Your task to perform on an android device: Go to wifi settings Image 0: 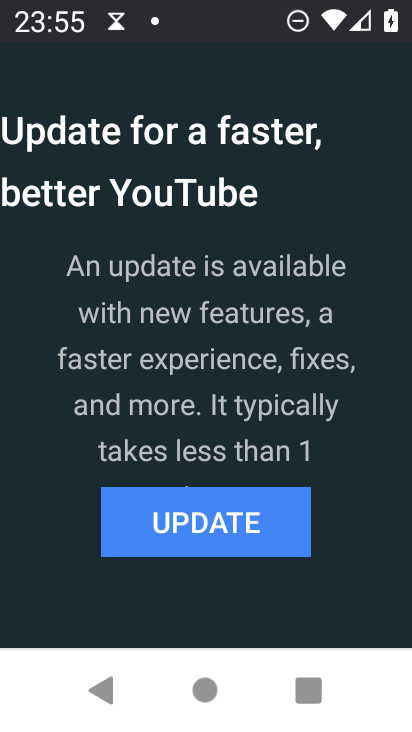
Step 0: press home button
Your task to perform on an android device: Go to wifi settings Image 1: 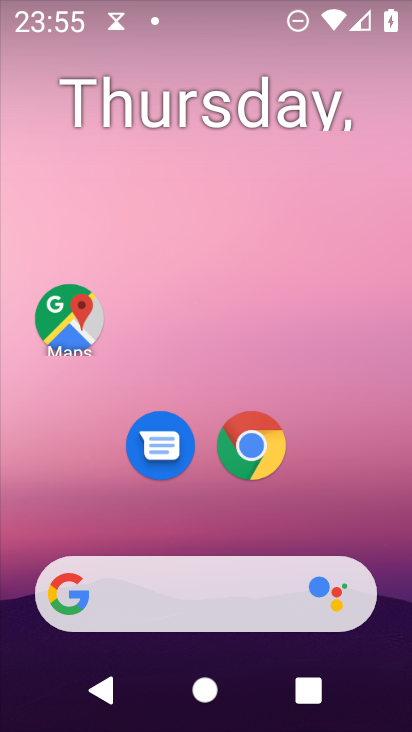
Step 1: drag from (240, 725) to (263, 3)
Your task to perform on an android device: Go to wifi settings Image 2: 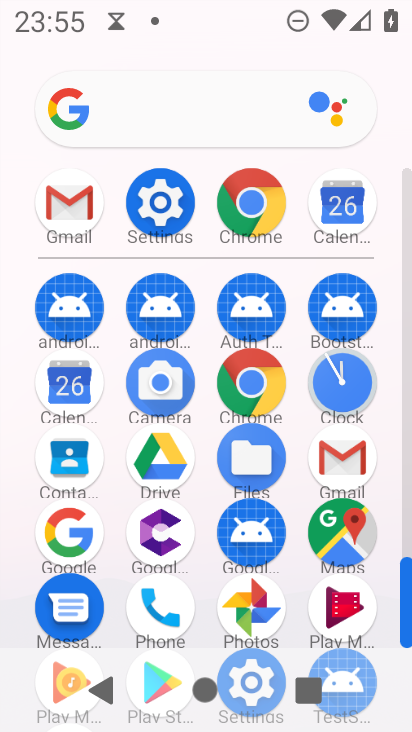
Step 2: click (163, 205)
Your task to perform on an android device: Go to wifi settings Image 3: 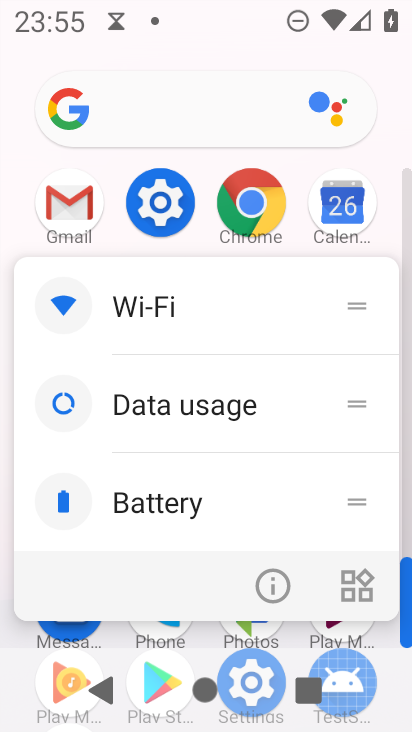
Step 3: click (155, 204)
Your task to perform on an android device: Go to wifi settings Image 4: 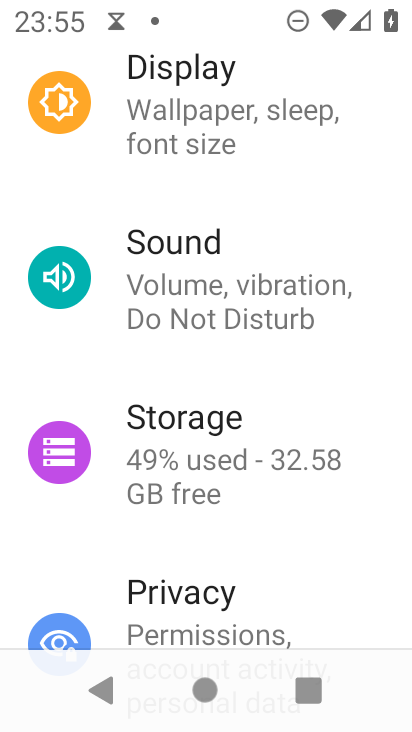
Step 4: drag from (340, 93) to (332, 559)
Your task to perform on an android device: Go to wifi settings Image 5: 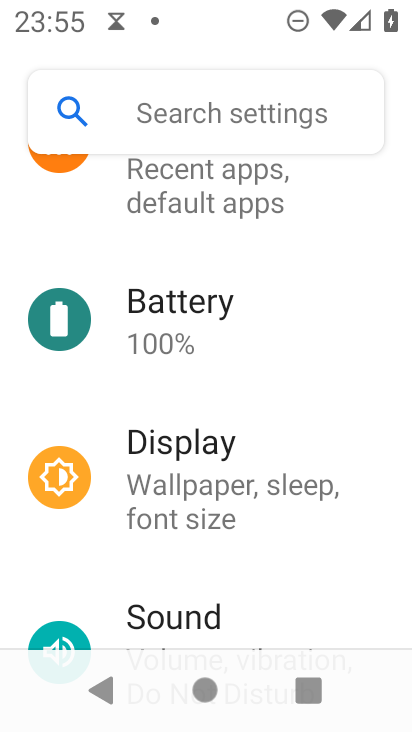
Step 5: drag from (321, 169) to (321, 628)
Your task to perform on an android device: Go to wifi settings Image 6: 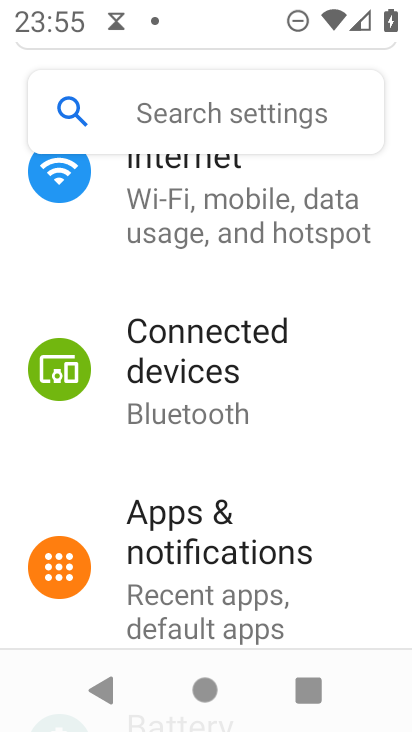
Step 6: drag from (299, 168) to (296, 592)
Your task to perform on an android device: Go to wifi settings Image 7: 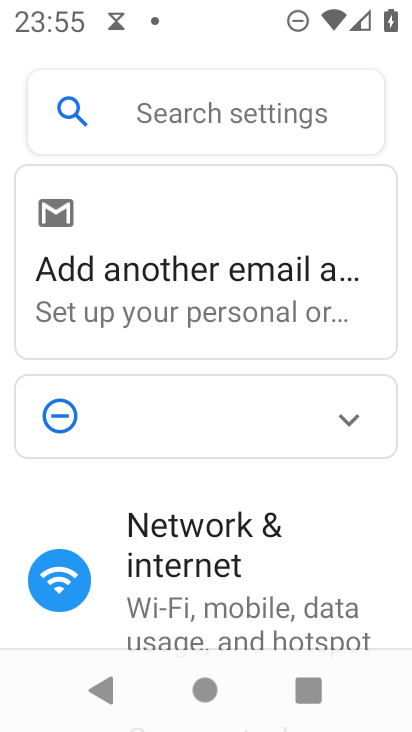
Step 7: click (201, 550)
Your task to perform on an android device: Go to wifi settings Image 8: 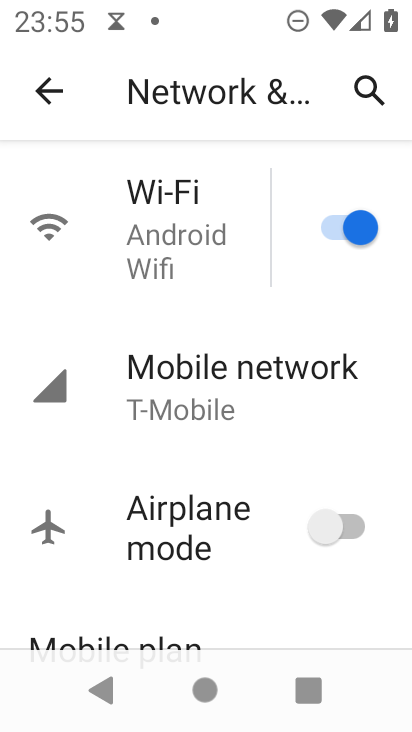
Step 8: click (158, 217)
Your task to perform on an android device: Go to wifi settings Image 9: 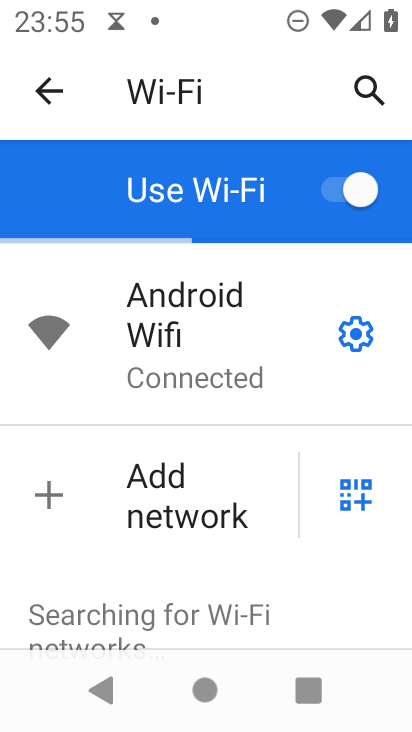
Step 9: task complete